Your task to perform on an android device: Open Google Maps Image 0: 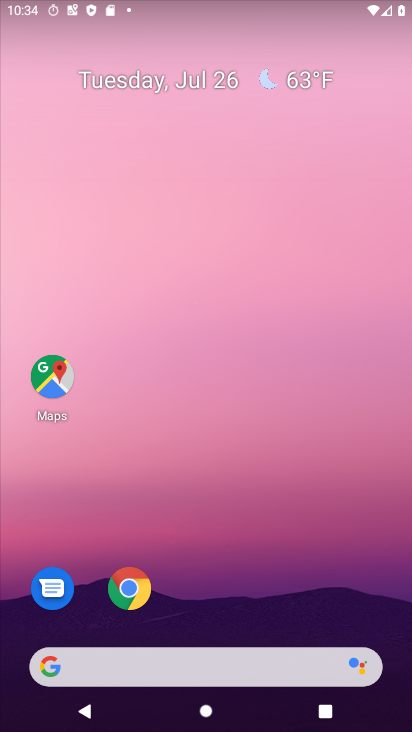
Step 0: click (72, 386)
Your task to perform on an android device: Open Google Maps Image 1: 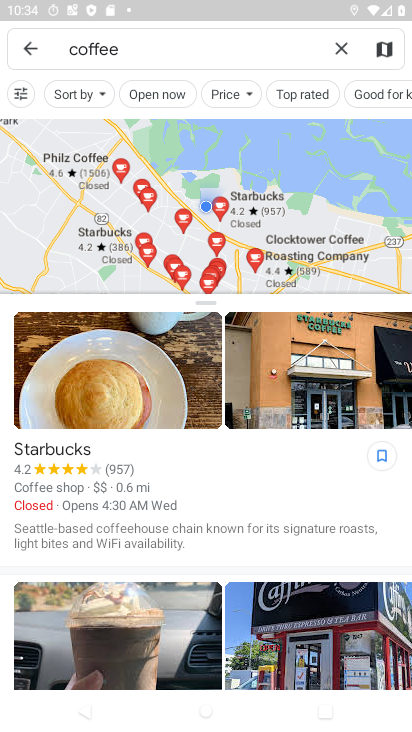
Step 1: task complete